Your task to perform on an android device: Open internet settings Image 0: 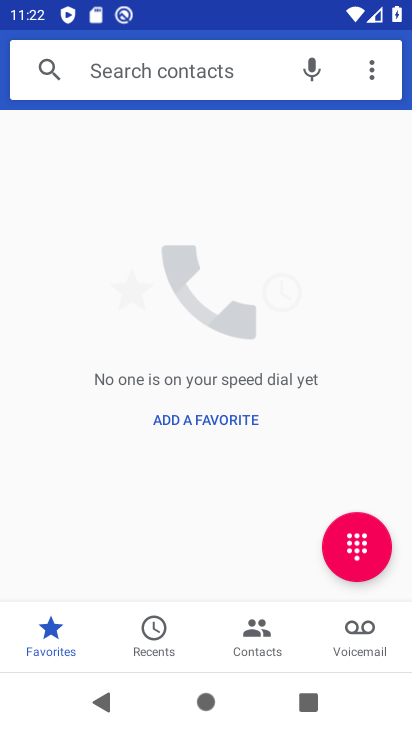
Step 0: press back button
Your task to perform on an android device: Open internet settings Image 1: 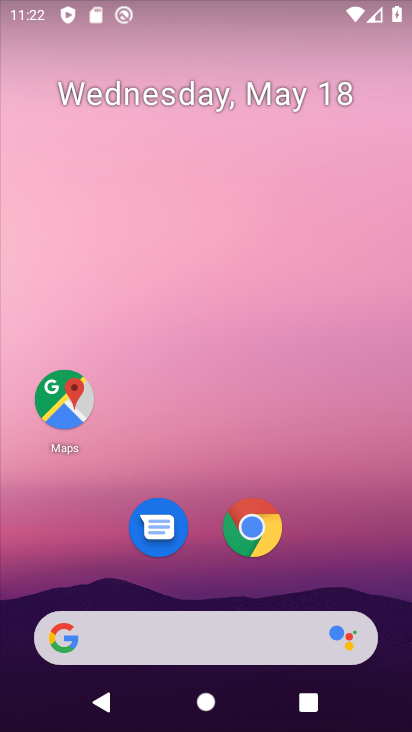
Step 1: drag from (229, 579) to (297, 10)
Your task to perform on an android device: Open internet settings Image 2: 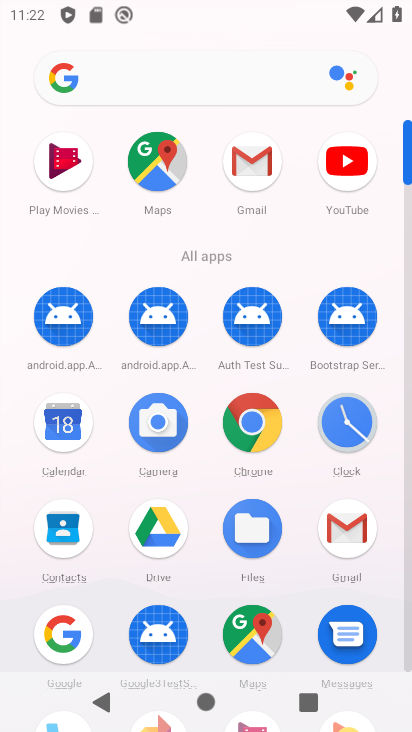
Step 2: drag from (165, 639) to (222, 46)
Your task to perform on an android device: Open internet settings Image 3: 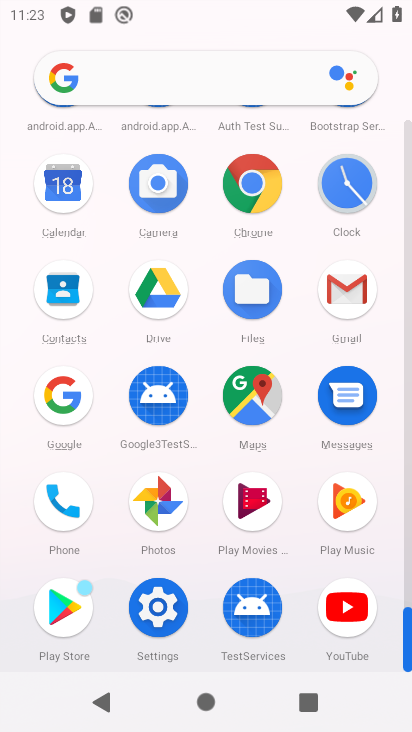
Step 3: click (161, 615)
Your task to perform on an android device: Open internet settings Image 4: 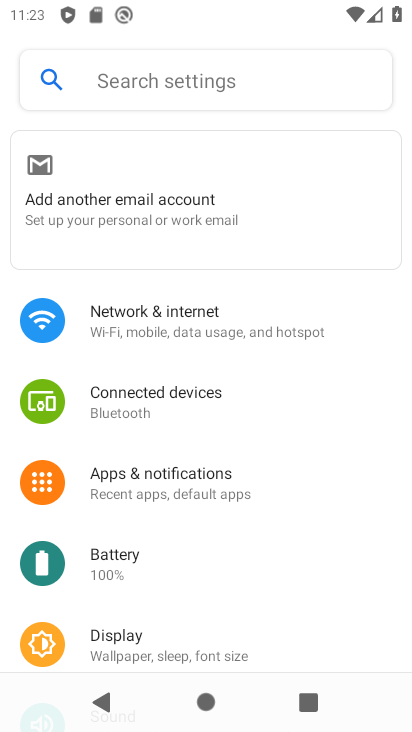
Step 4: click (155, 319)
Your task to perform on an android device: Open internet settings Image 5: 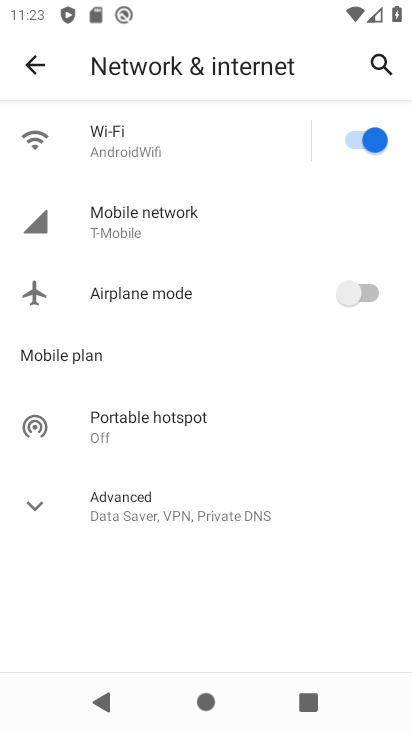
Step 5: task complete